Your task to perform on an android device: open wifi settings Image 0: 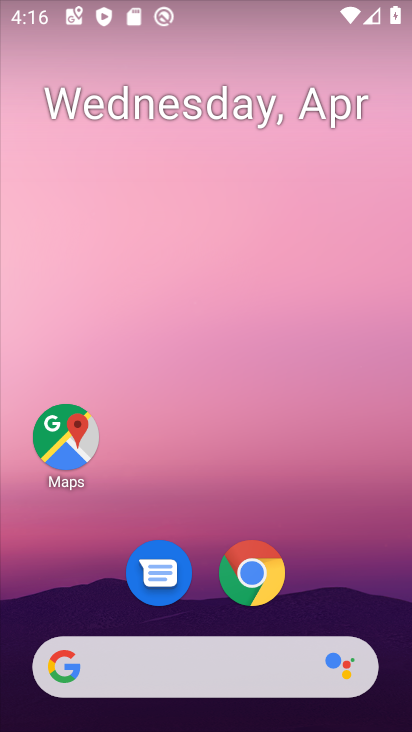
Step 0: drag from (372, 615) to (397, 62)
Your task to perform on an android device: open wifi settings Image 1: 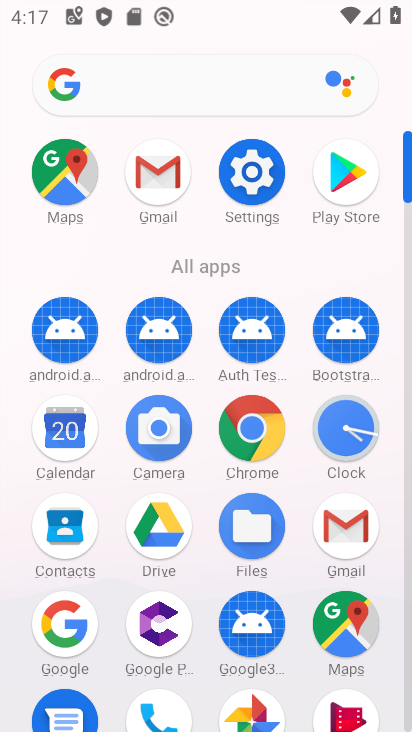
Step 1: click (254, 180)
Your task to perform on an android device: open wifi settings Image 2: 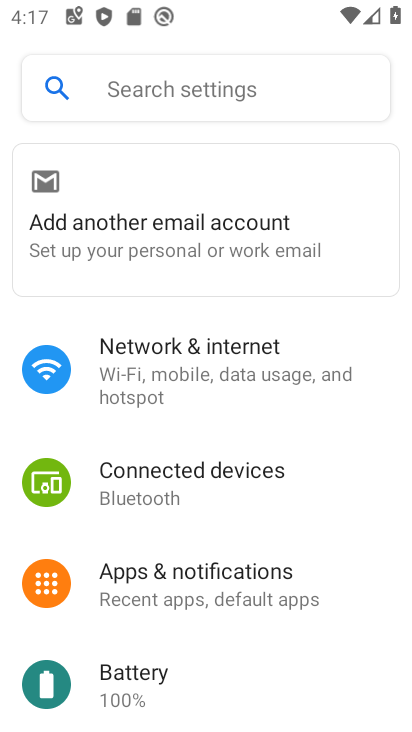
Step 2: click (175, 366)
Your task to perform on an android device: open wifi settings Image 3: 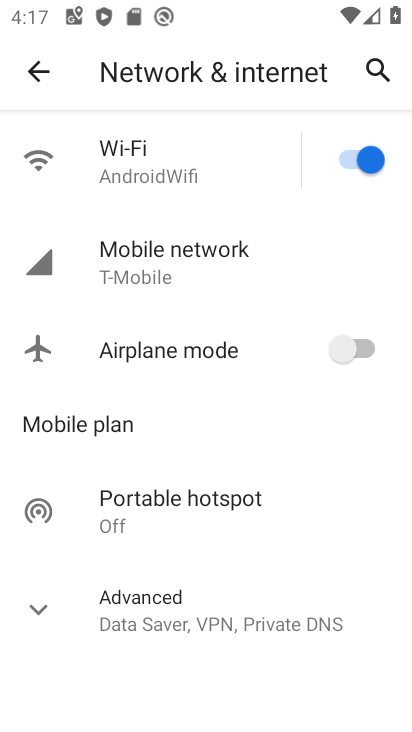
Step 3: click (110, 156)
Your task to perform on an android device: open wifi settings Image 4: 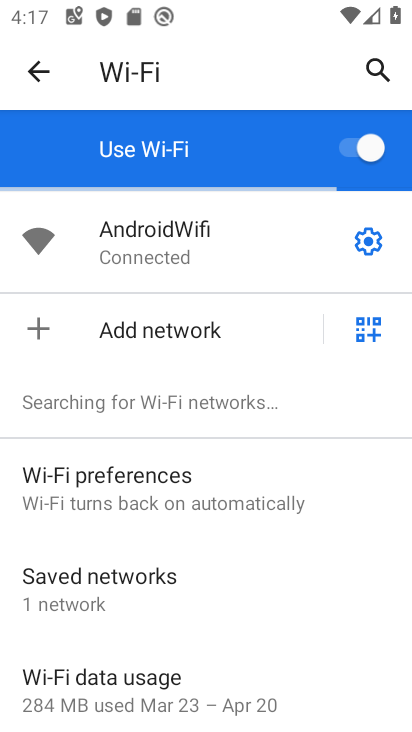
Step 4: task complete